Your task to perform on an android device: turn off data saver in the chrome app Image 0: 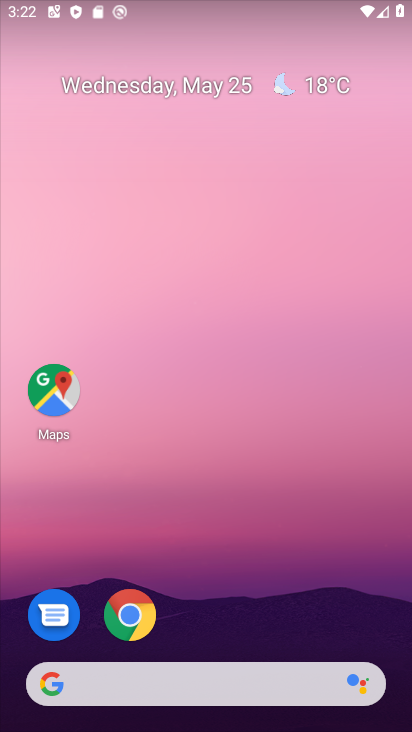
Step 0: click (136, 611)
Your task to perform on an android device: turn off data saver in the chrome app Image 1: 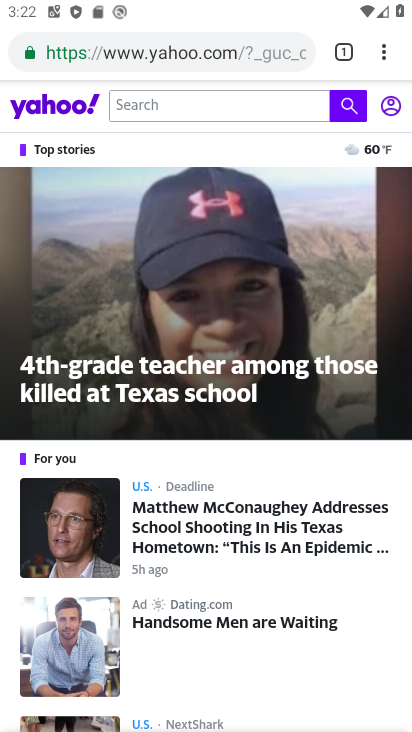
Step 1: click (389, 55)
Your task to perform on an android device: turn off data saver in the chrome app Image 2: 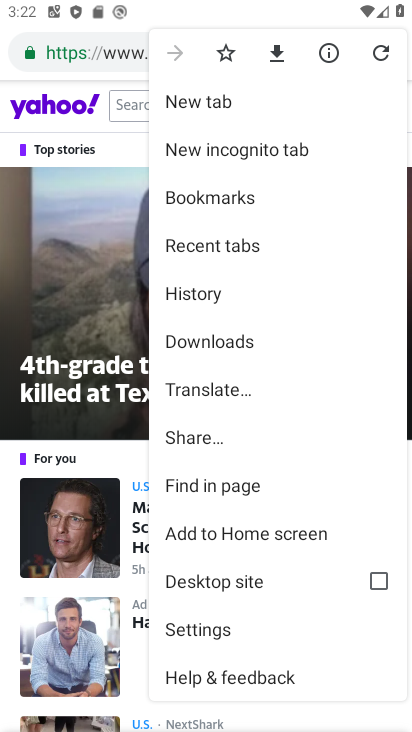
Step 2: click (204, 624)
Your task to perform on an android device: turn off data saver in the chrome app Image 3: 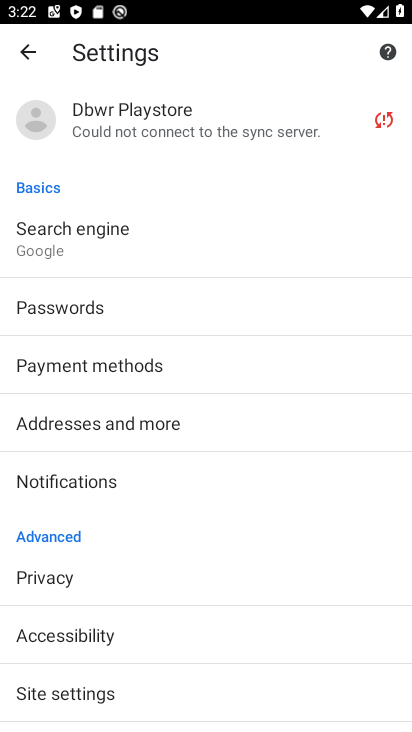
Step 3: drag from (162, 672) to (156, 308)
Your task to perform on an android device: turn off data saver in the chrome app Image 4: 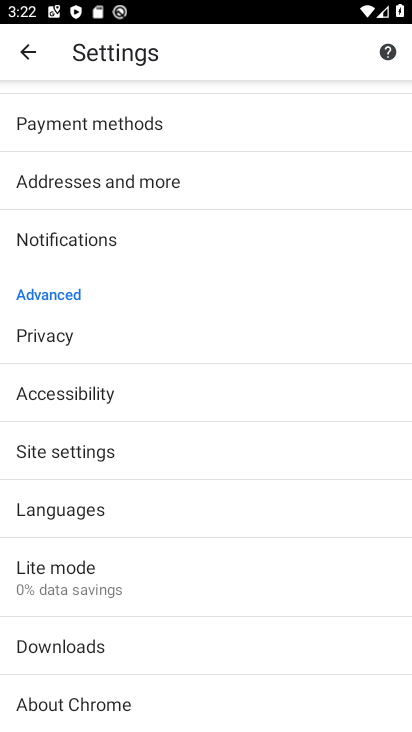
Step 4: click (98, 605)
Your task to perform on an android device: turn off data saver in the chrome app Image 5: 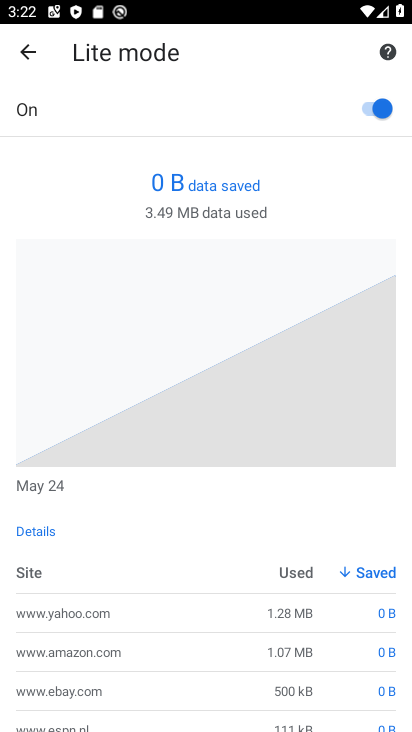
Step 5: click (370, 109)
Your task to perform on an android device: turn off data saver in the chrome app Image 6: 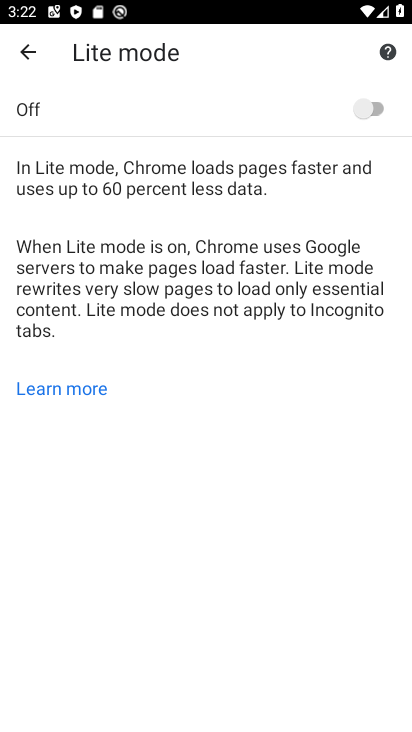
Step 6: task complete